Your task to perform on an android device: open a bookmark in the chrome app Image 0: 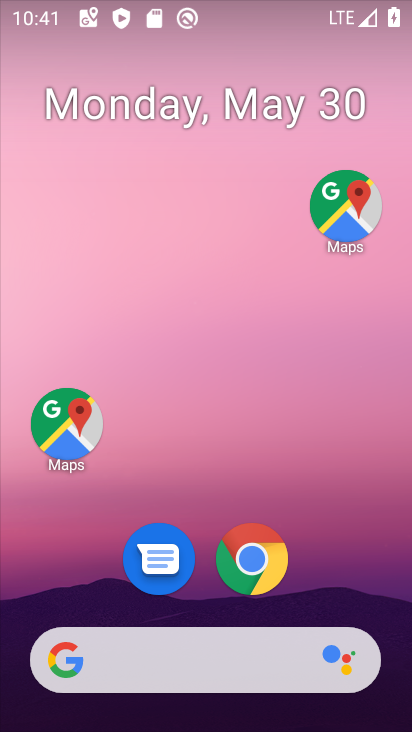
Step 0: drag from (309, 558) to (312, 204)
Your task to perform on an android device: open a bookmark in the chrome app Image 1: 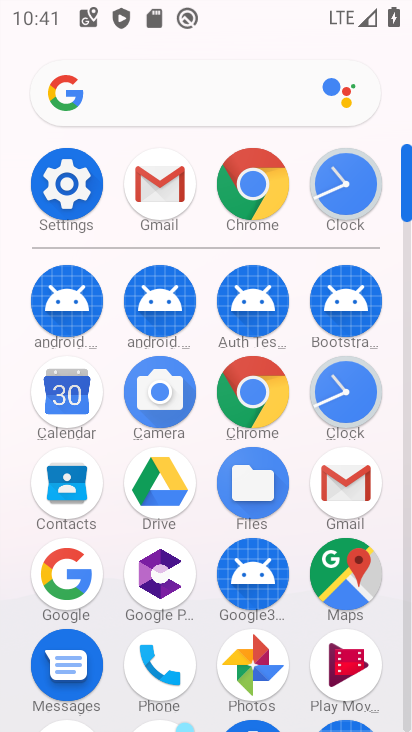
Step 1: click (256, 394)
Your task to perform on an android device: open a bookmark in the chrome app Image 2: 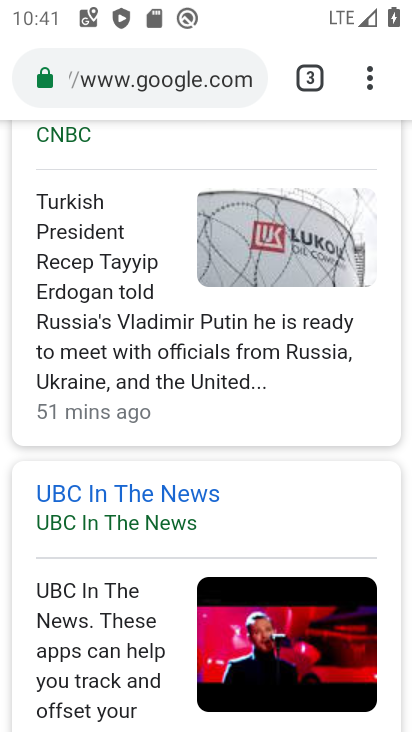
Step 2: drag from (376, 69) to (225, 302)
Your task to perform on an android device: open a bookmark in the chrome app Image 3: 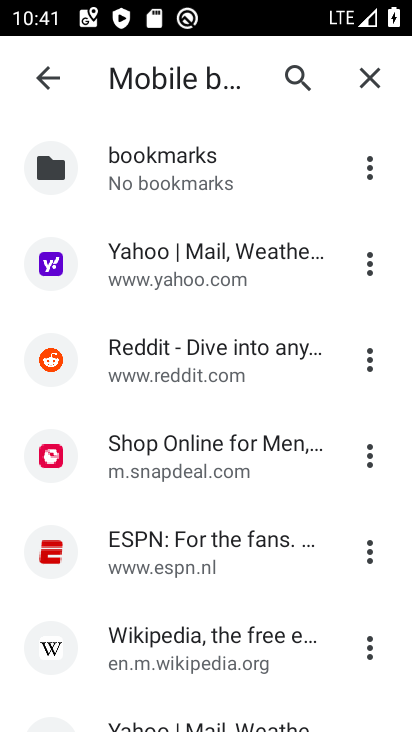
Step 3: click (218, 447)
Your task to perform on an android device: open a bookmark in the chrome app Image 4: 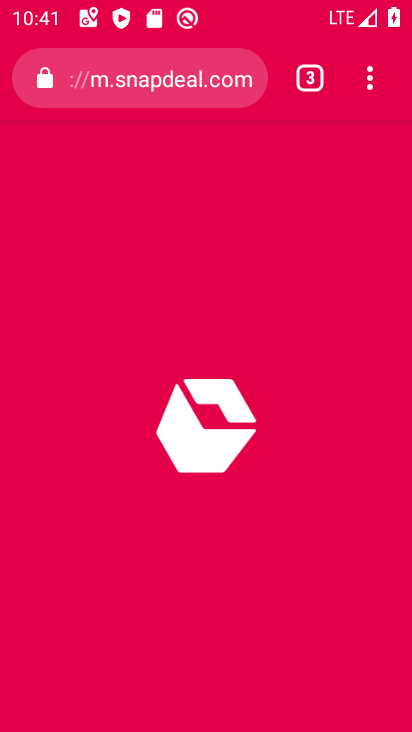
Step 4: task complete